Your task to perform on an android device: turn on notifications settings in the gmail app Image 0: 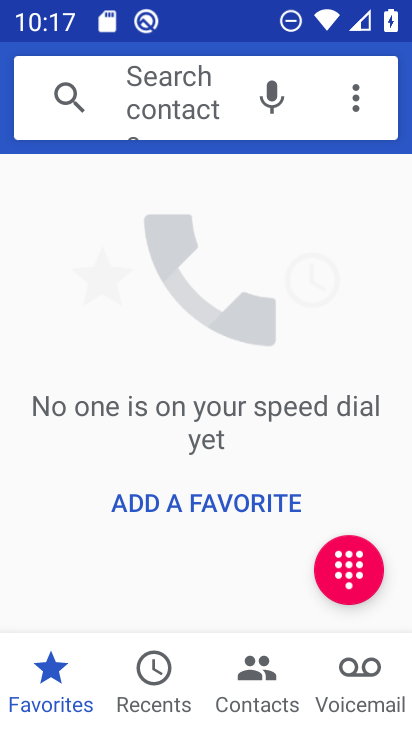
Step 0: press home button
Your task to perform on an android device: turn on notifications settings in the gmail app Image 1: 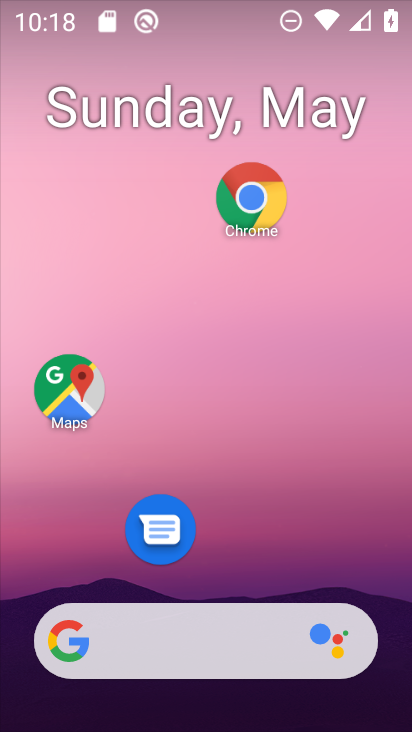
Step 1: drag from (310, 533) to (253, 171)
Your task to perform on an android device: turn on notifications settings in the gmail app Image 2: 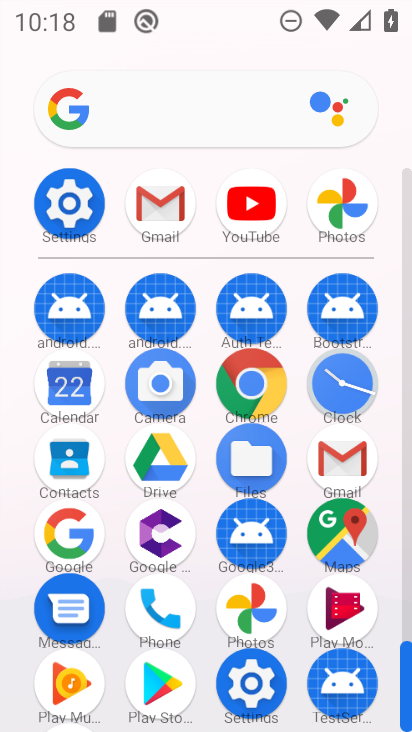
Step 2: click (330, 460)
Your task to perform on an android device: turn on notifications settings in the gmail app Image 3: 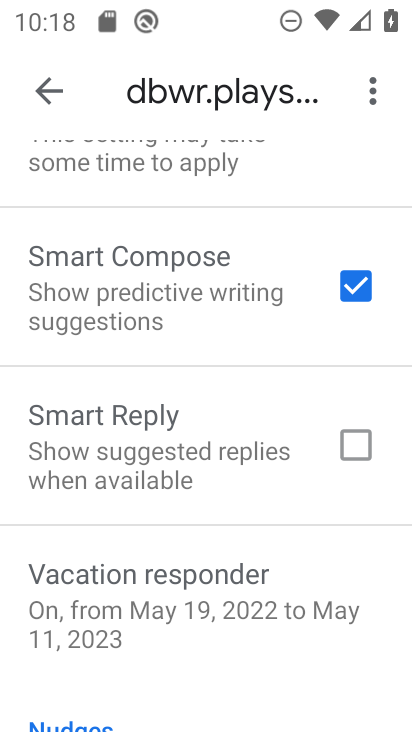
Step 3: drag from (210, 289) to (100, 707)
Your task to perform on an android device: turn on notifications settings in the gmail app Image 4: 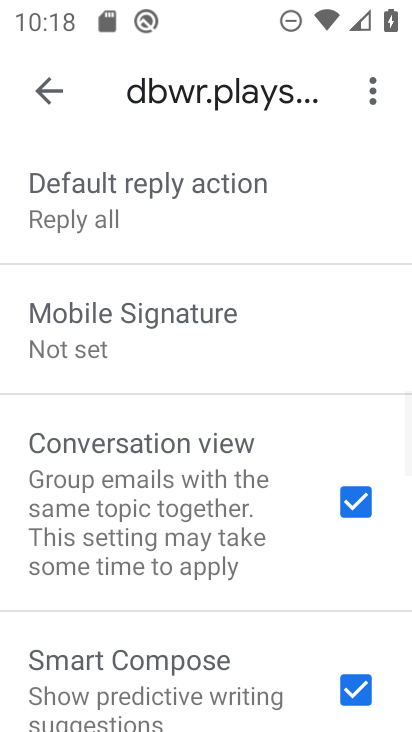
Step 4: drag from (140, 324) to (56, 651)
Your task to perform on an android device: turn on notifications settings in the gmail app Image 5: 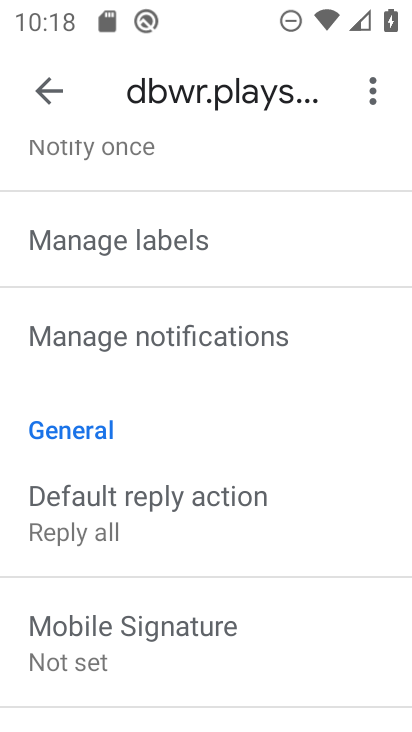
Step 5: click (135, 322)
Your task to perform on an android device: turn on notifications settings in the gmail app Image 6: 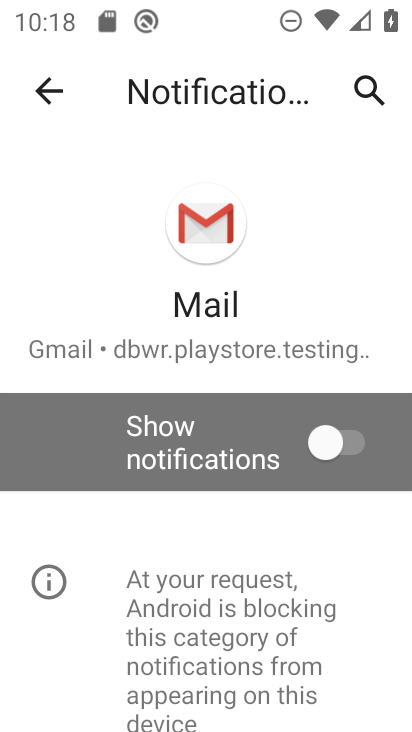
Step 6: click (338, 439)
Your task to perform on an android device: turn on notifications settings in the gmail app Image 7: 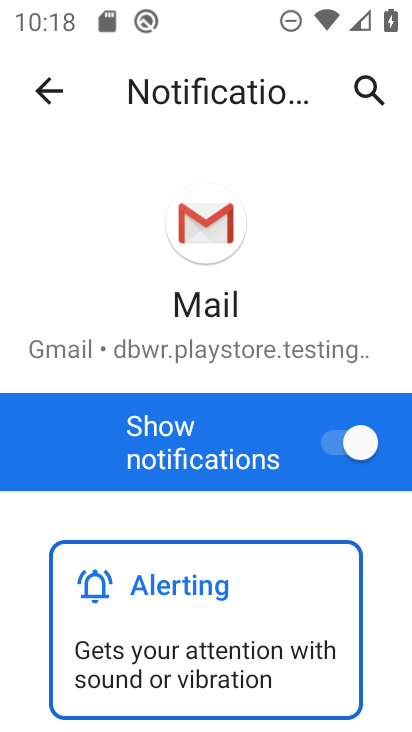
Step 7: task complete